Your task to perform on an android device: toggle data saver in the chrome app Image 0: 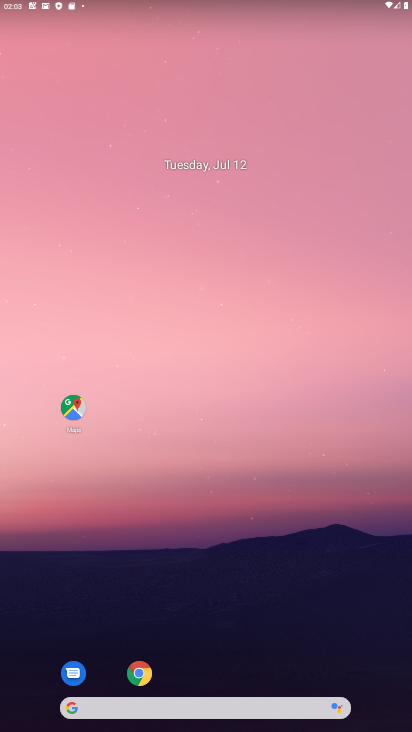
Step 0: press home button
Your task to perform on an android device: toggle data saver in the chrome app Image 1: 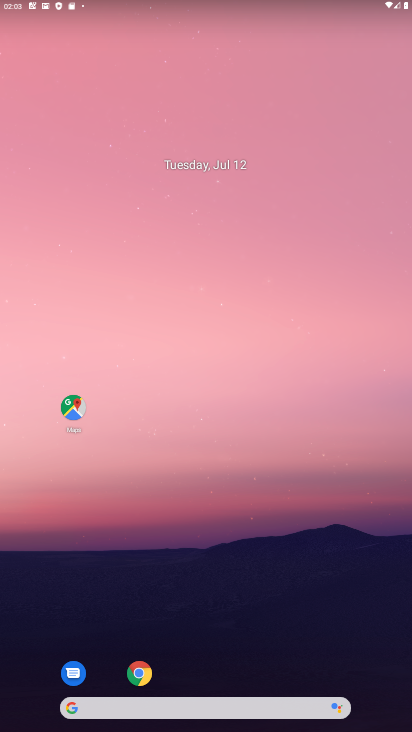
Step 1: click (129, 671)
Your task to perform on an android device: toggle data saver in the chrome app Image 2: 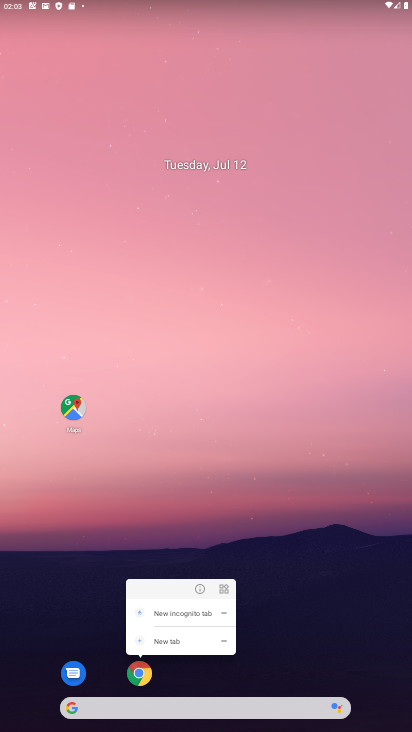
Step 2: click (136, 673)
Your task to perform on an android device: toggle data saver in the chrome app Image 3: 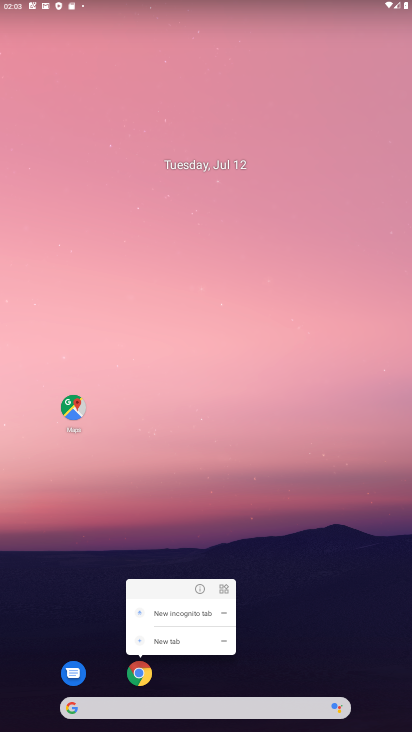
Step 3: click (128, 671)
Your task to perform on an android device: toggle data saver in the chrome app Image 4: 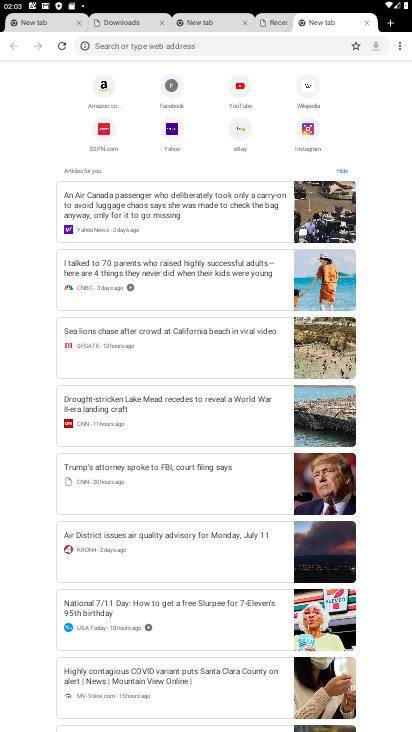
Step 4: drag from (395, 46) to (330, 204)
Your task to perform on an android device: toggle data saver in the chrome app Image 5: 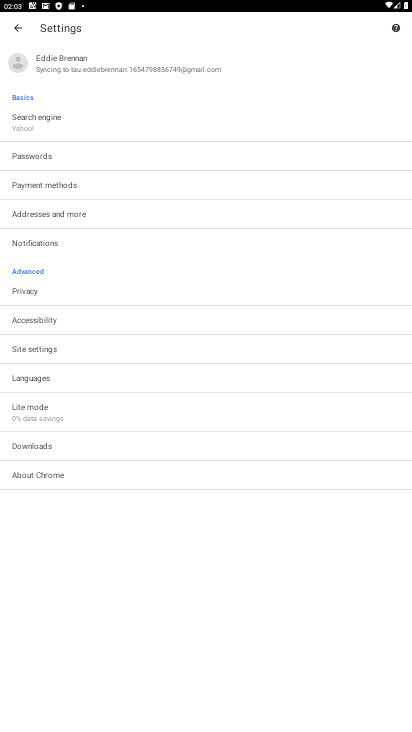
Step 5: click (50, 410)
Your task to perform on an android device: toggle data saver in the chrome app Image 6: 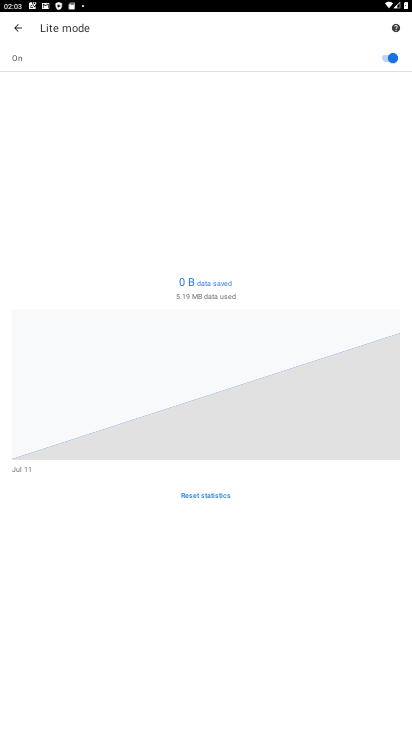
Step 6: click (387, 57)
Your task to perform on an android device: toggle data saver in the chrome app Image 7: 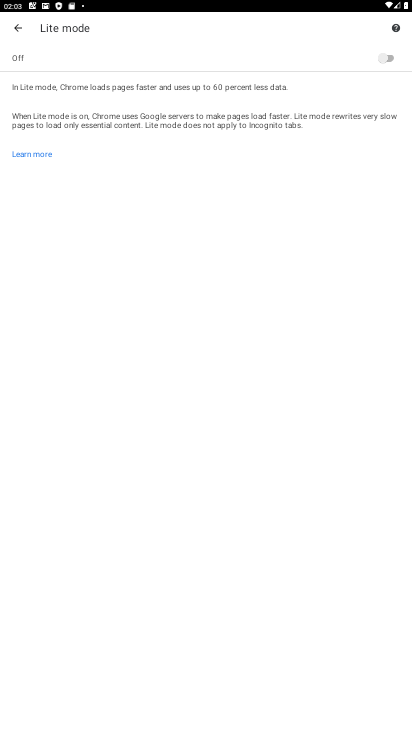
Step 7: task complete